Your task to perform on an android device: open sync settings in chrome Image 0: 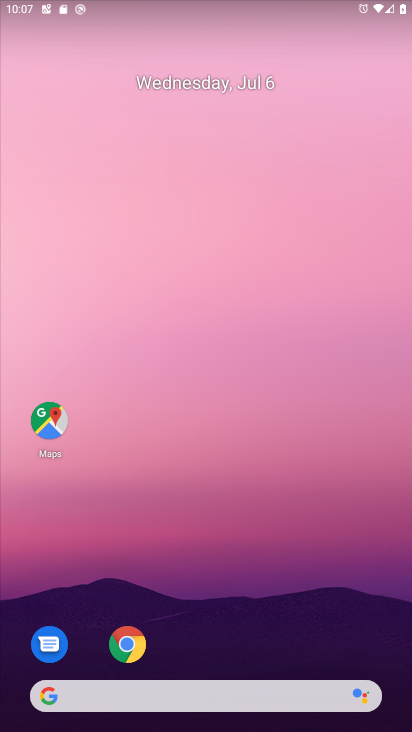
Step 0: drag from (219, 681) to (286, 163)
Your task to perform on an android device: open sync settings in chrome Image 1: 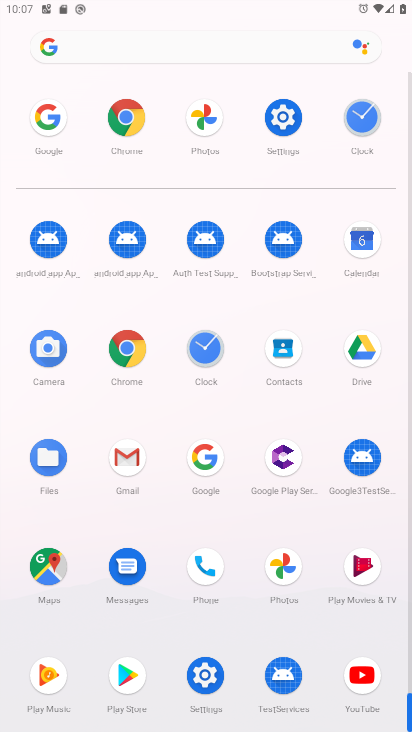
Step 1: click (288, 137)
Your task to perform on an android device: open sync settings in chrome Image 2: 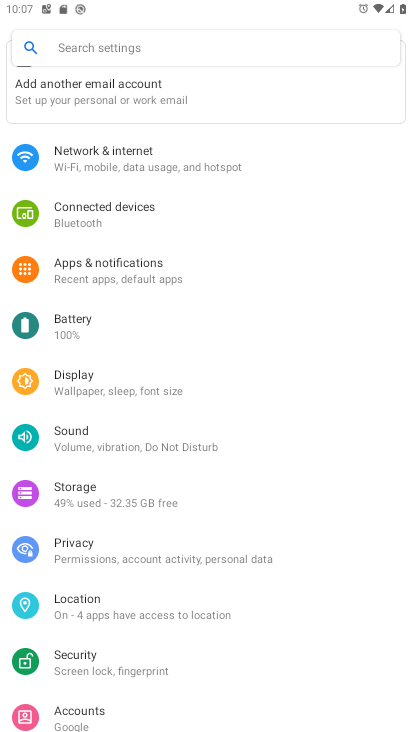
Step 2: drag from (137, 632) to (141, 465)
Your task to perform on an android device: open sync settings in chrome Image 3: 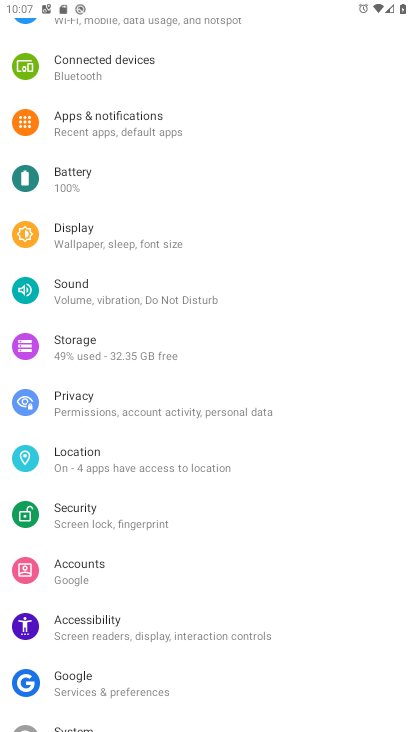
Step 3: press home button
Your task to perform on an android device: open sync settings in chrome Image 4: 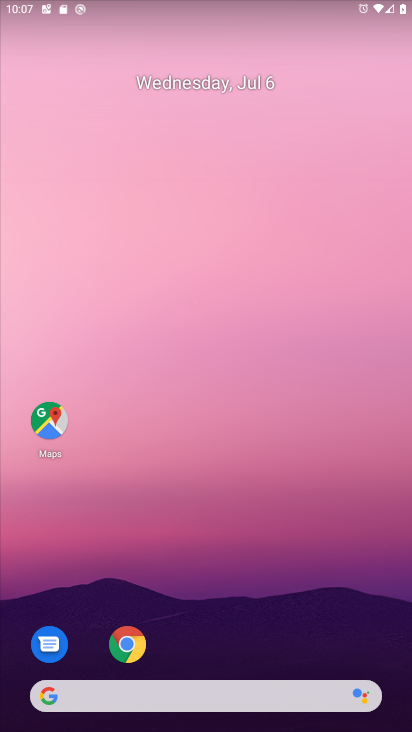
Step 4: drag from (177, 630) to (246, 146)
Your task to perform on an android device: open sync settings in chrome Image 5: 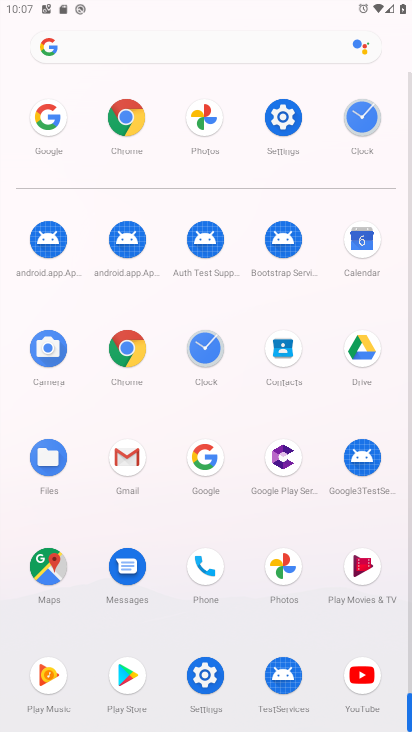
Step 5: click (126, 121)
Your task to perform on an android device: open sync settings in chrome Image 6: 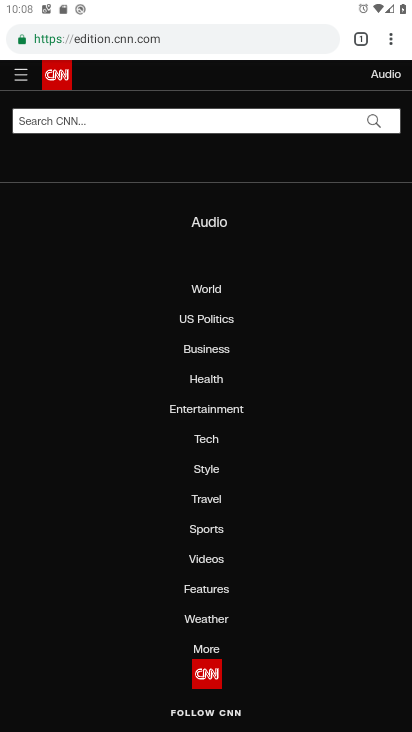
Step 6: click (388, 50)
Your task to perform on an android device: open sync settings in chrome Image 7: 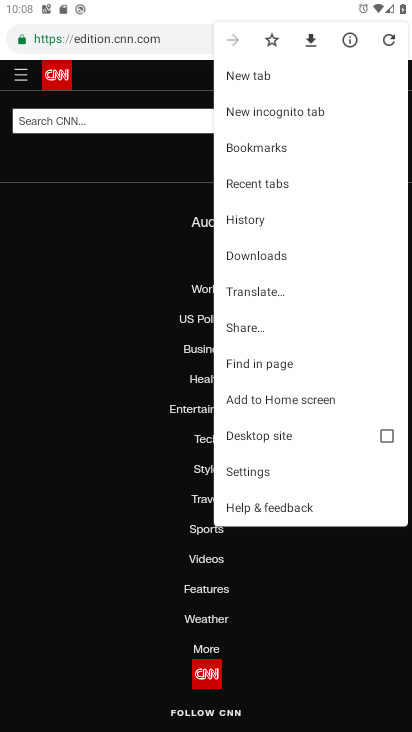
Step 7: click (257, 468)
Your task to perform on an android device: open sync settings in chrome Image 8: 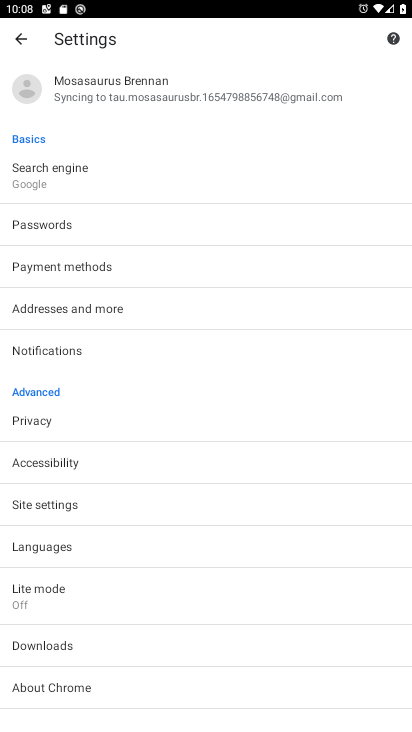
Step 8: click (132, 99)
Your task to perform on an android device: open sync settings in chrome Image 9: 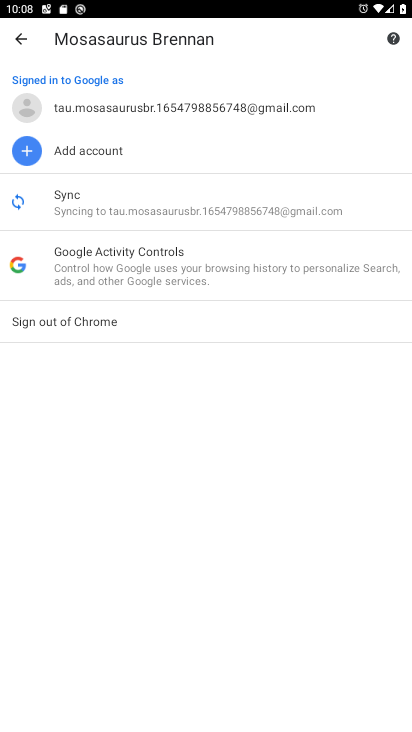
Step 9: click (225, 197)
Your task to perform on an android device: open sync settings in chrome Image 10: 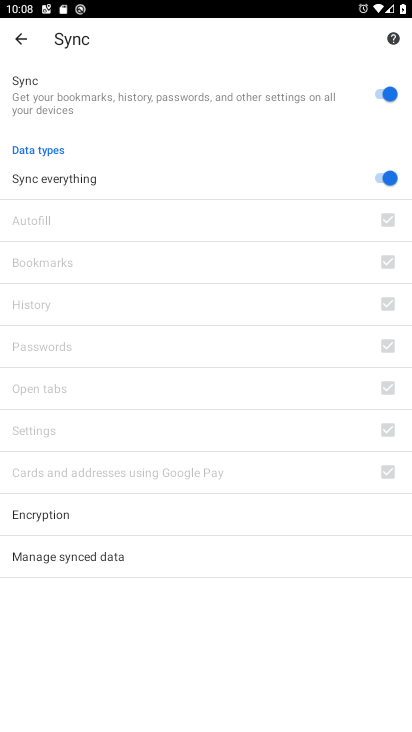
Step 10: task complete